Your task to perform on an android device: Open eBay Image 0: 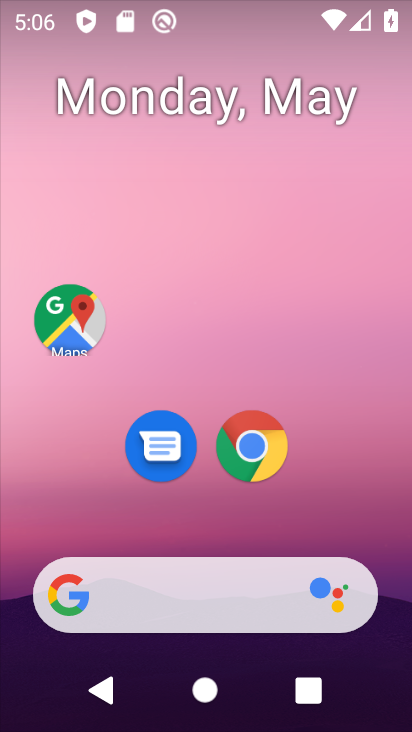
Step 0: click (223, 582)
Your task to perform on an android device: Open eBay Image 1: 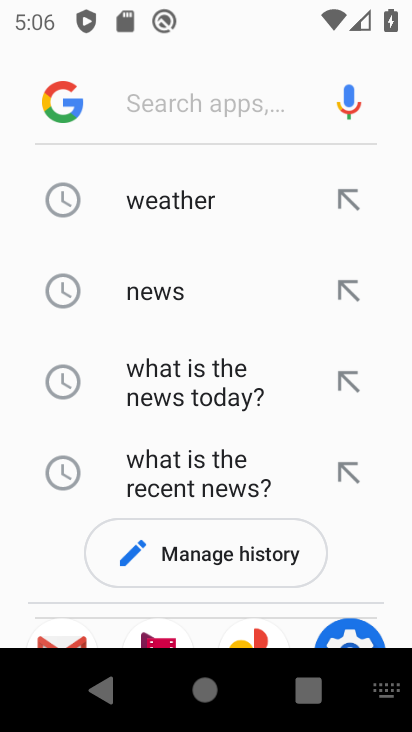
Step 1: click (173, 95)
Your task to perform on an android device: Open eBay Image 2: 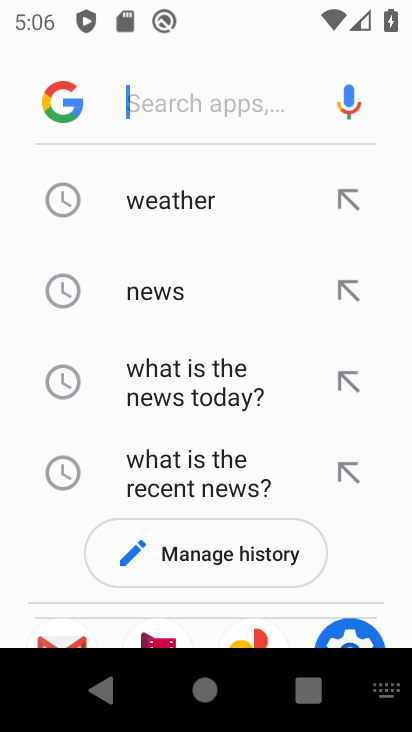
Step 2: type "ebay"
Your task to perform on an android device: Open eBay Image 3: 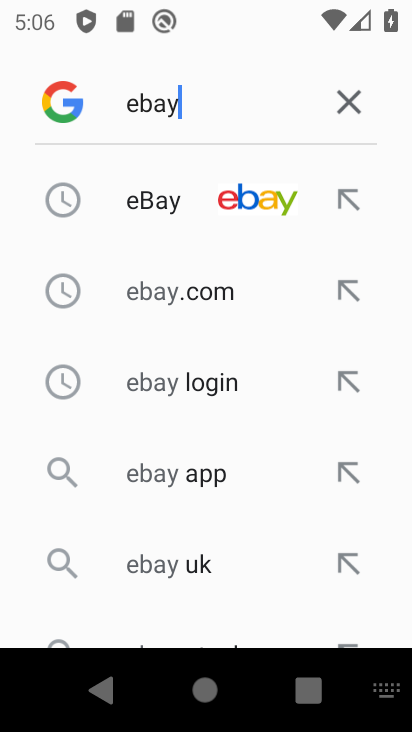
Step 3: click (151, 197)
Your task to perform on an android device: Open eBay Image 4: 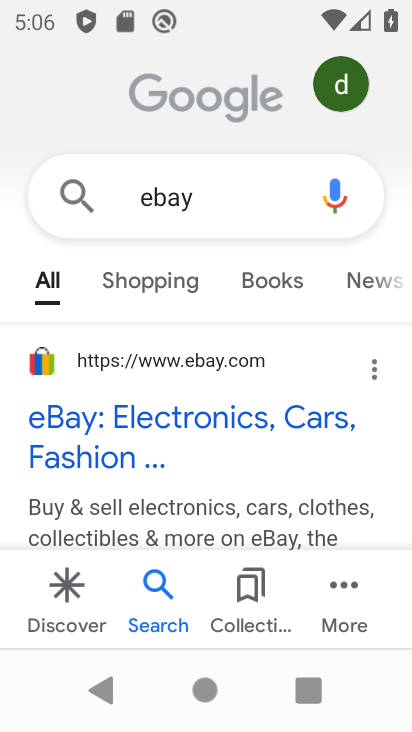
Step 4: task complete